Your task to perform on an android device: Open privacy settings Image 0: 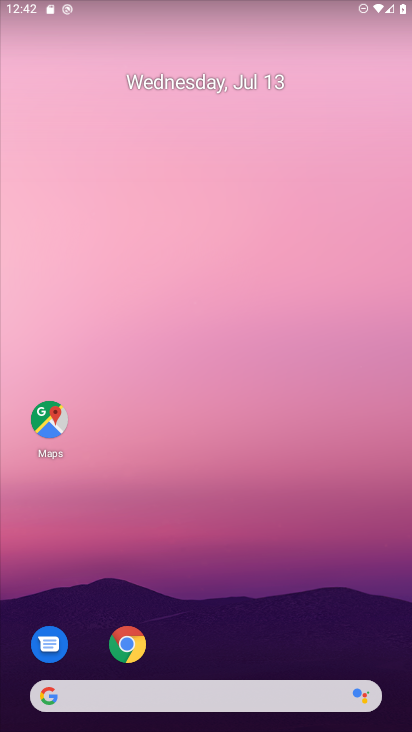
Step 0: drag from (150, 725) to (277, 47)
Your task to perform on an android device: Open privacy settings Image 1: 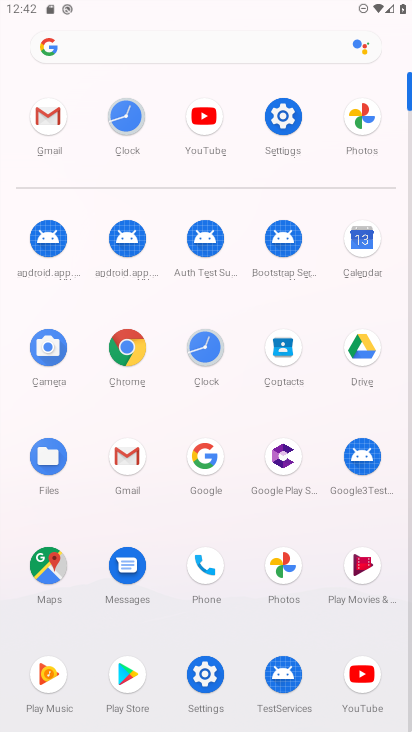
Step 1: click (289, 116)
Your task to perform on an android device: Open privacy settings Image 2: 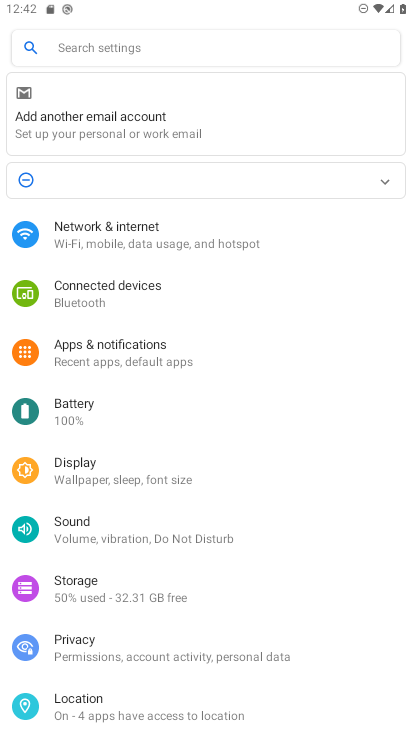
Step 2: drag from (279, 650) to (282, 29)
Your task to perform on an android device: Open privacy settings Image 3: 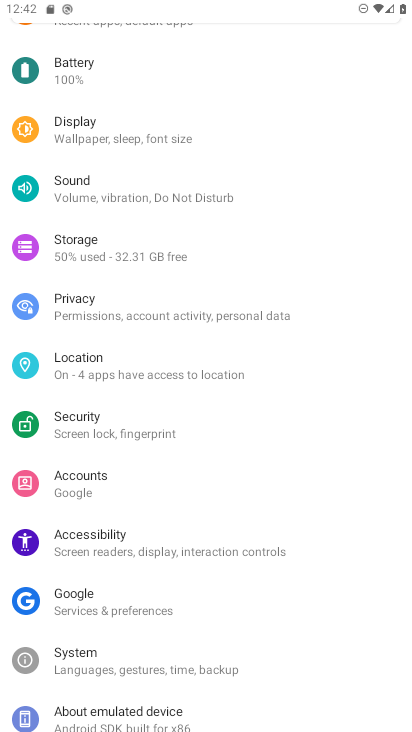
Step 3: click (256, 309)
Your task to perform on an android device: Open privacy settings Image 4: 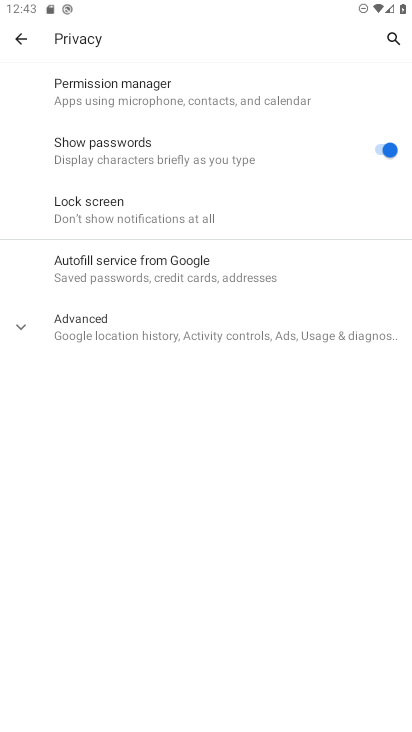
Step 4: task complete